Your task to perform on an android device: check storage Image 0: 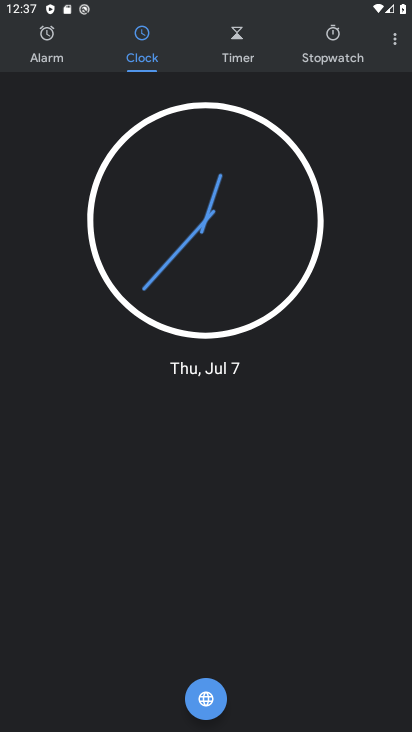
Step 0: press home button
Your task to perform on an android device: check storage Image 1: 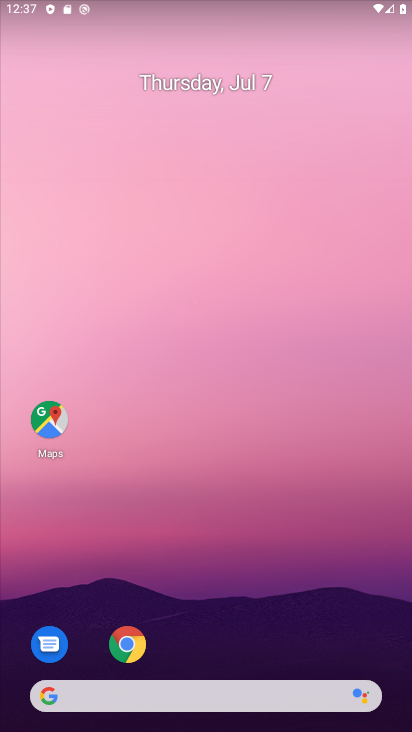
Step 1: drag from (262, 649) to (188, 142)
Your task to perform on an android device: check storage Image 2: 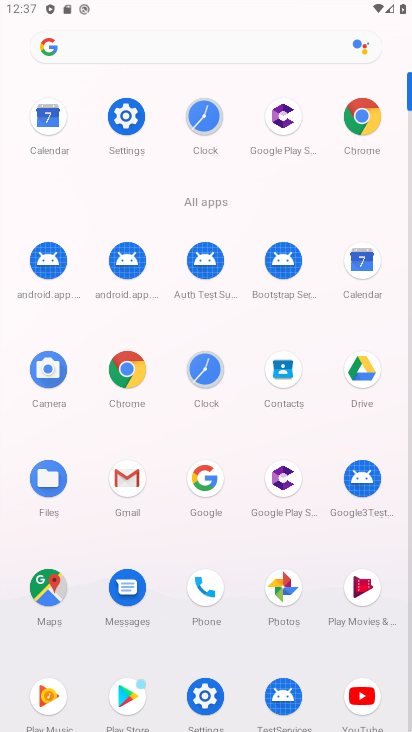
Step 2: click (128, 126)
Your task to perform on an android device: check storage Image 3: 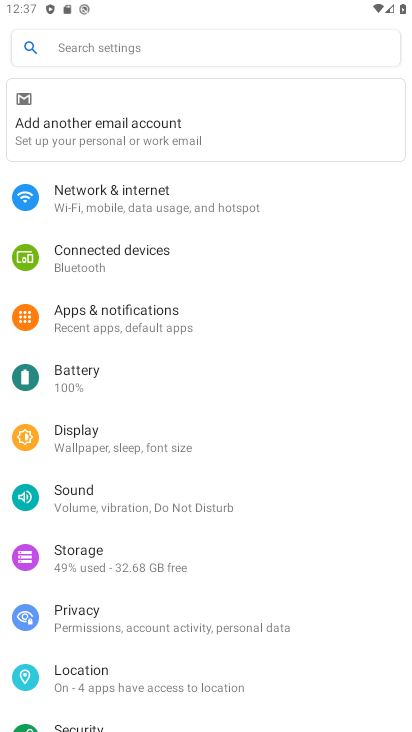
Step 3: click (153, 560)
Your task to perform on an android device: check storage Image 4: 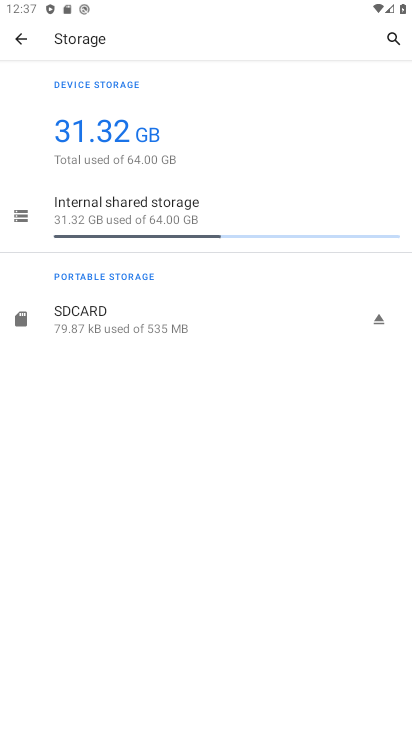
Step 4: task complete